Your task to perform on an android device: set default search engine in the chrome app Image 0: 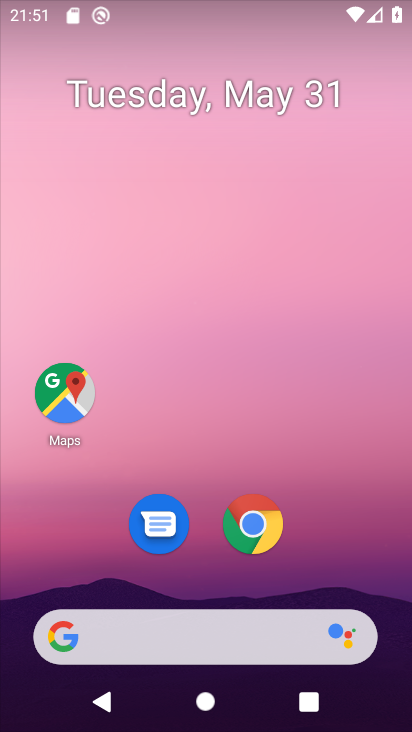
Step 0: click (261, 522)
Your task to perform on an android device: set default search engine in the chrome app Image 1: 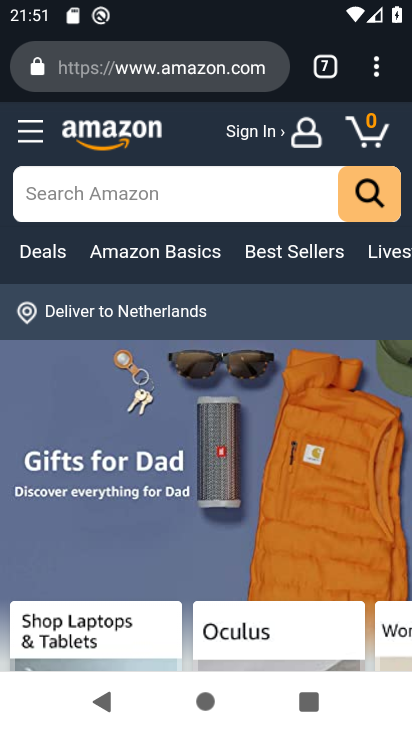
Step 1: click (371, 69)
Your task to perform on an android device: set default search engine in the chrome app Image 2: 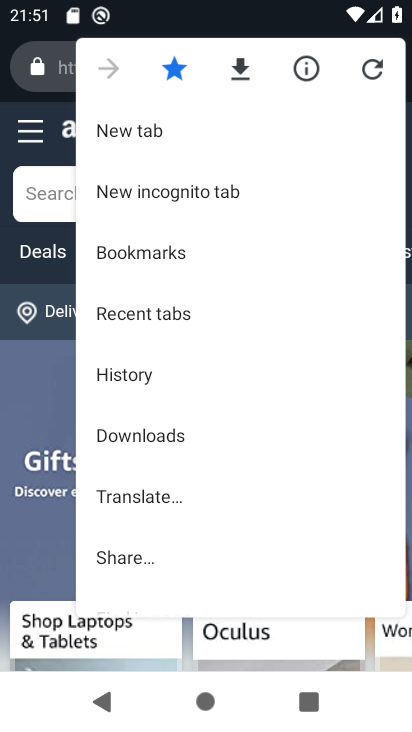
Step 2: drag from (215, 432) to (239, 234)
Your task to perform on an android device: set default search engine in the chrome app Image 3: 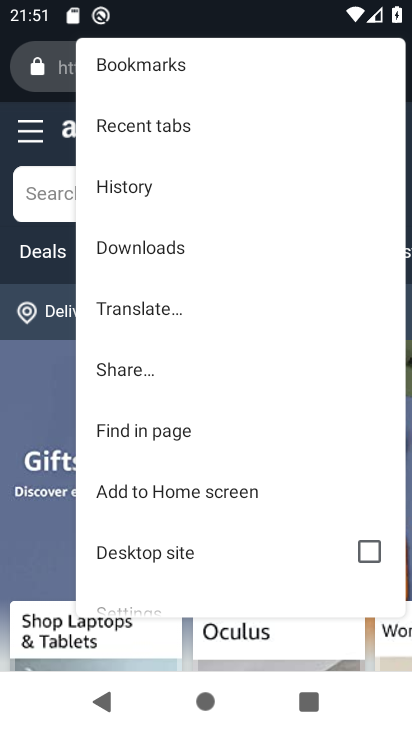
Step 3: drag from (214, 418) to (231, 194)
Your task to perform on an android device: set default search engine in the chrome app Image 4: 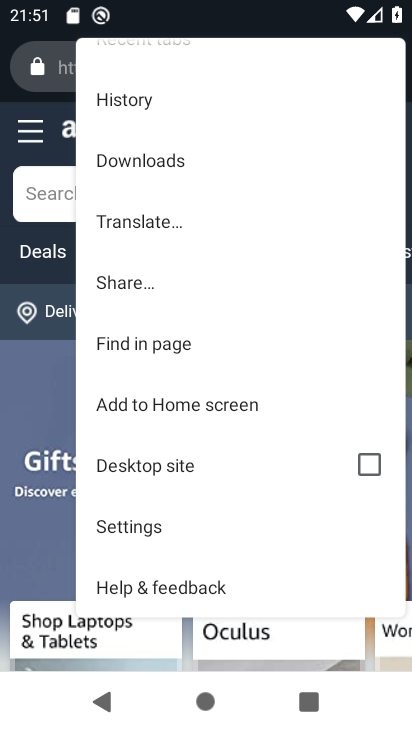
Step 4: click (171, 519)
Your task to perform on an android device: set default search engine in the chrome app Image 5: 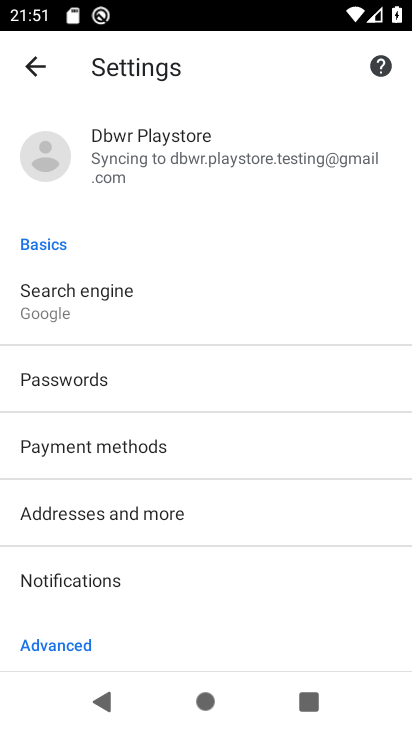
Step 5: click (205, 322)
Your task to perform on an android device: set default search engine in the chrome app Image 6: 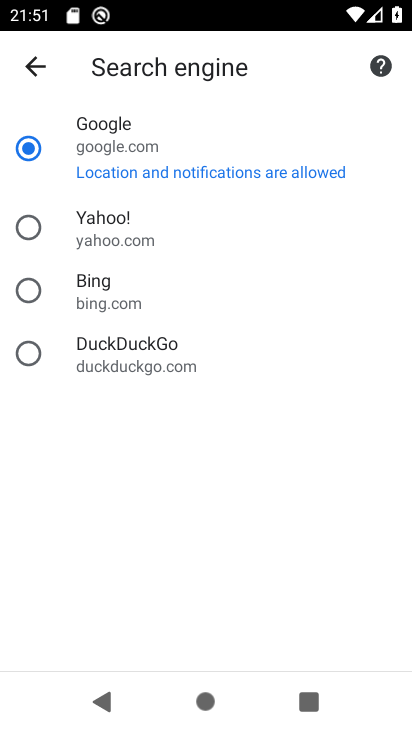
Step 6: task complete